Your task to perform on an android device: Search for Mexican restaurants on Maps Image 0: 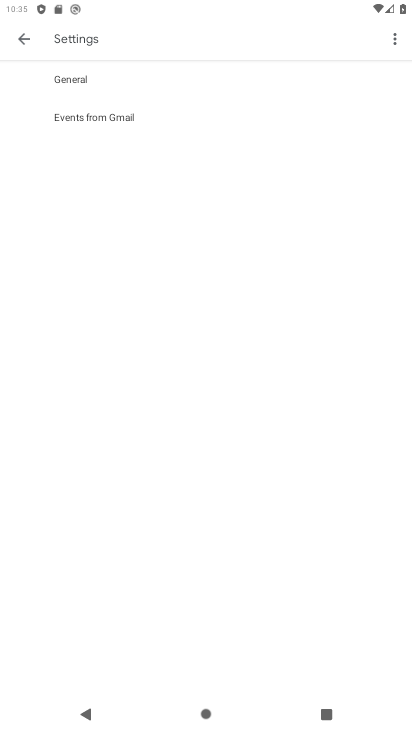
Step 0: press home button
Your task to perform on an android device: Search for Mexican restaurants on Maps Image 1: 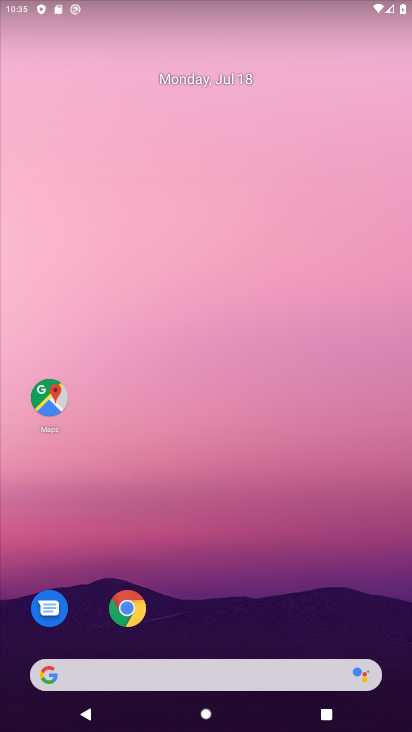
Step 1: click (52, 401)
Your task to perform on an android device: Search for Mexican restaurants on Maps Image 2: 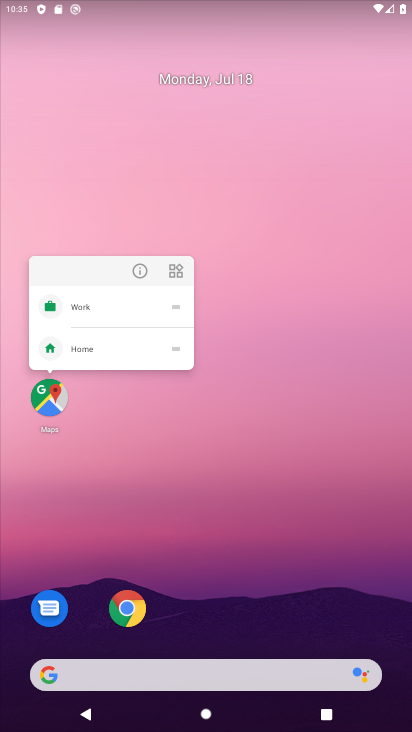
Step 2: click (52, 401)
Your task to perform on an android device: Search for Mexican restaurants on Maps Image 3: 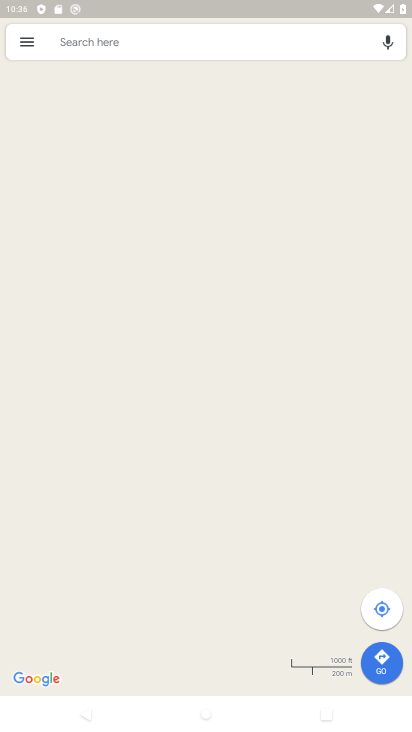
Step 3: click (200, 34)
Your task to perform on an android device: Search for Mexican restaurants on Maps Image 4: 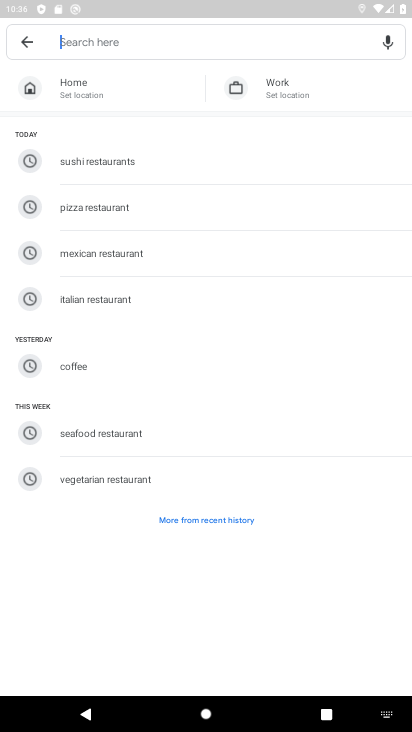
Step 4: type "mexican restaurants"
Your task to perform on an android device: Search for Mexican restaurants on Maps Image 5: 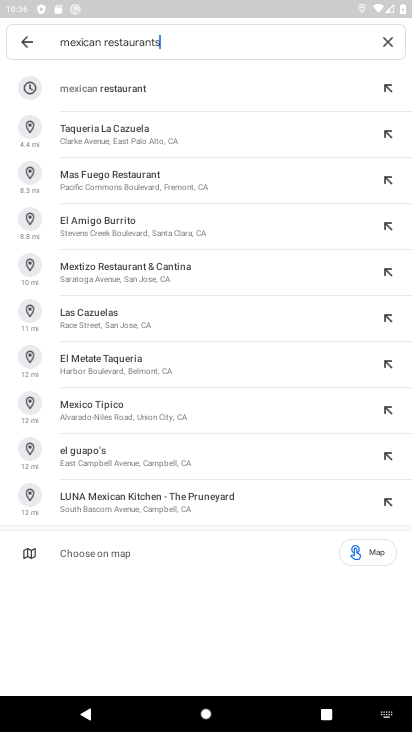
Step 5: click (138, 87)
Your task to perform on an android device: Search for Mexican restaurants on Maps Image 6: 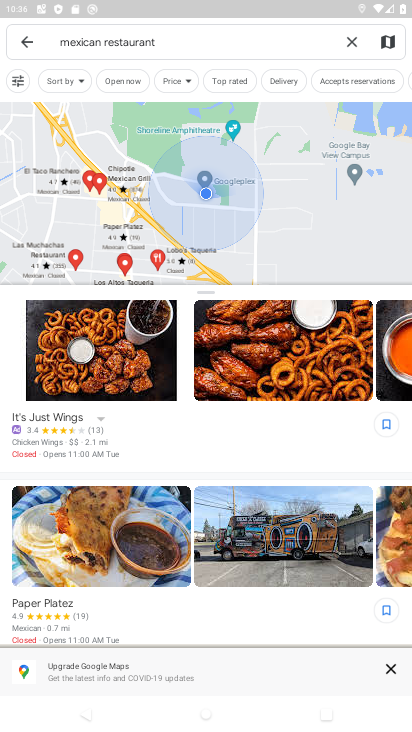
Step 6: task complete